Your task to perform on an android device: What's the news this morning? Image 0: 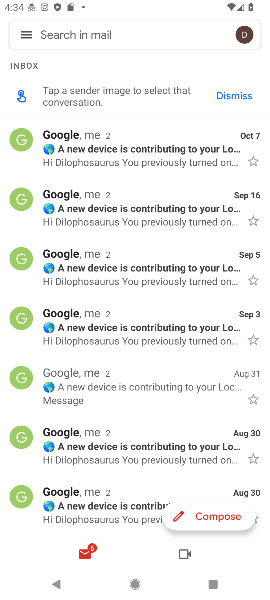
Step 0: press home button
Your task to perform on an android device: What's the news this morning? Image 1: 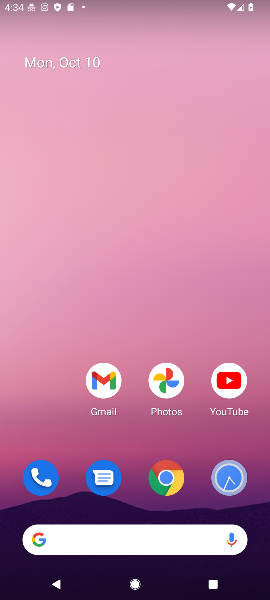
Step 1: click (165, 475)
Your task to perform on an android device: What's the news this morning? Image 2: 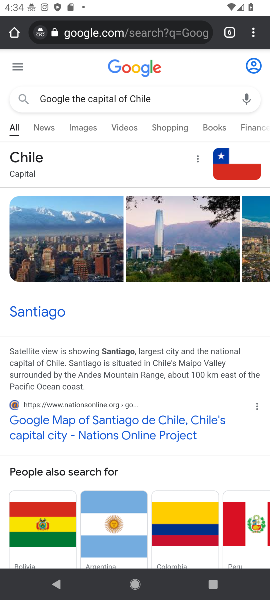
Step 2: click (78, 31)
Your task to perform on an android device: What's the news this morning? Image 3: 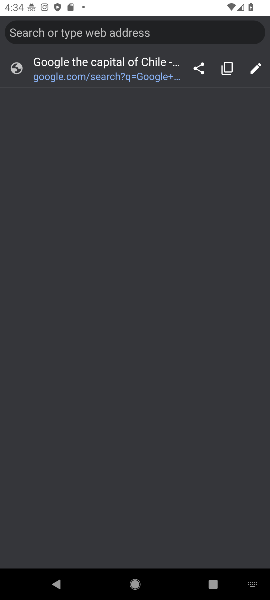
Step 3: type "What's the news this morning?"
Your task to perform on an android device: What's the news this morning? Image 4: 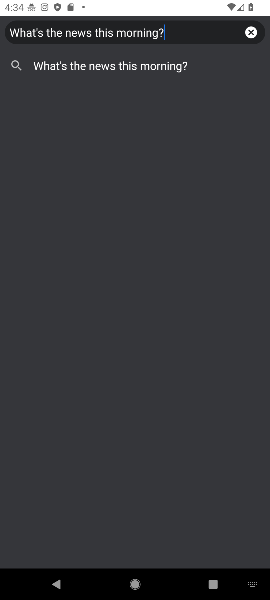
Step 4: click (212, 67)
Your task to perform on an android device: What's the news this morning? Image 5: 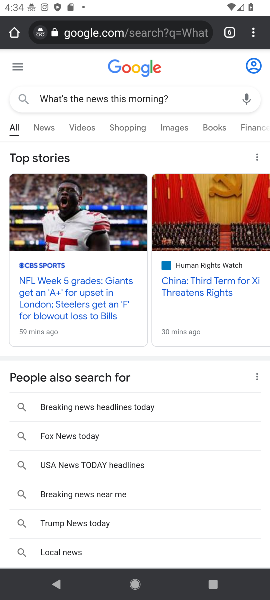
Step 5: click (46, 131)
Your task to perform on an android device: What's the news this morning? Image 6: 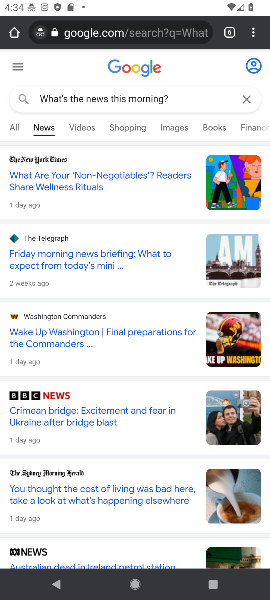
Step 6: task complete